Your task to perform on an android device: Find coffee shops on Maps Image 0: 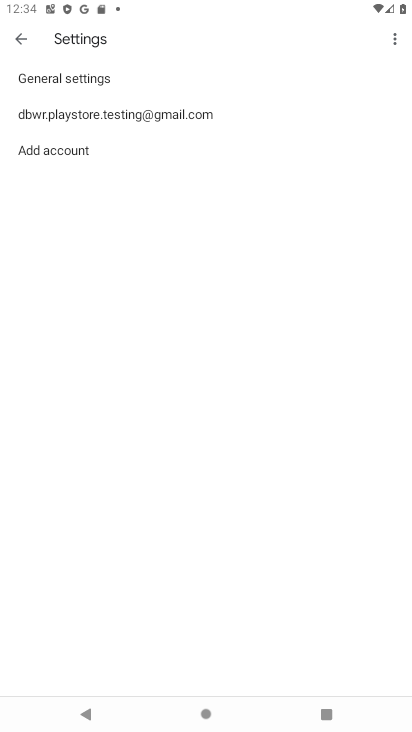
Step 0: press home button
Your task to perform on an android device: Find coffee shops on Maps Image 1: 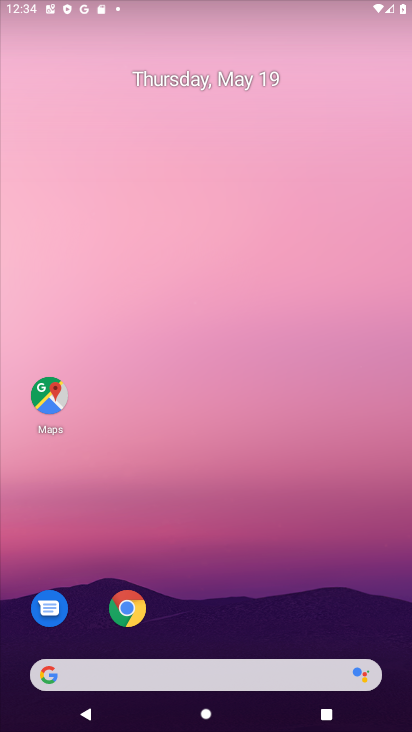
Step 1: drag from (241, 609) to (269, 208)
Your task to perform on an android device: Find coffee shops on Maps Image 2: 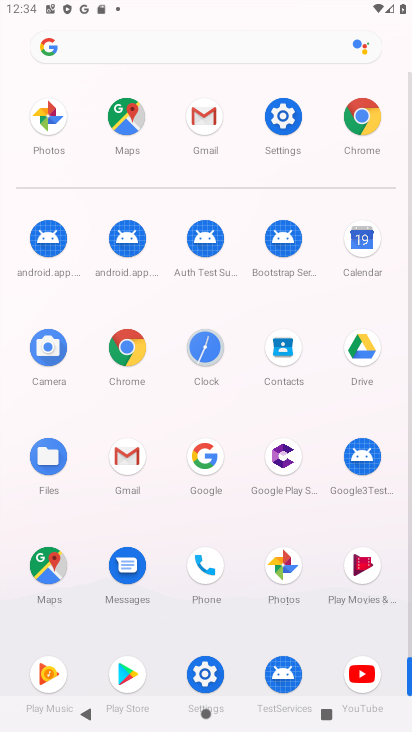
Step 2: click (52, 559)
Your task to perform on an android device: Find coffee shops on Maps Image 3: 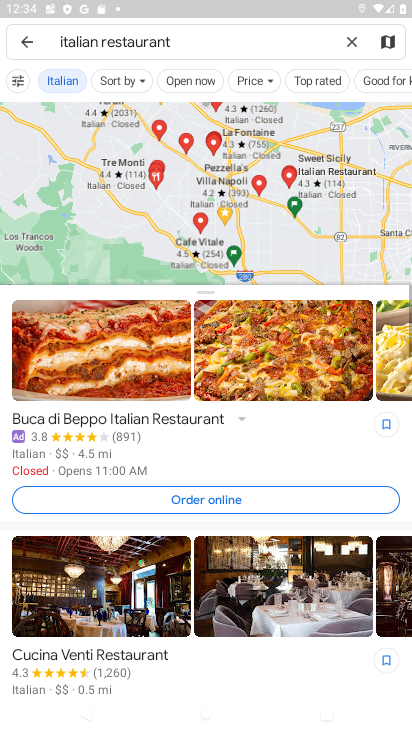
Step 3: click (341, 34)
Your task to perform on an android device: Find coffee shops on Maps Image 4: 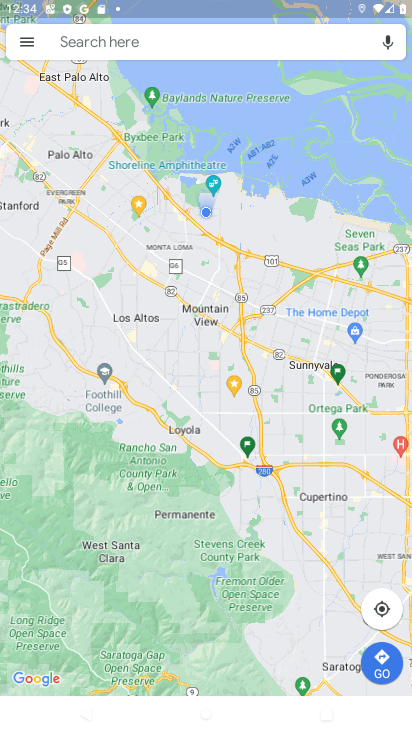
Step 4: click (176, 36)
Your task to perform on an android device: Find coffee shops on Maps Image 5: 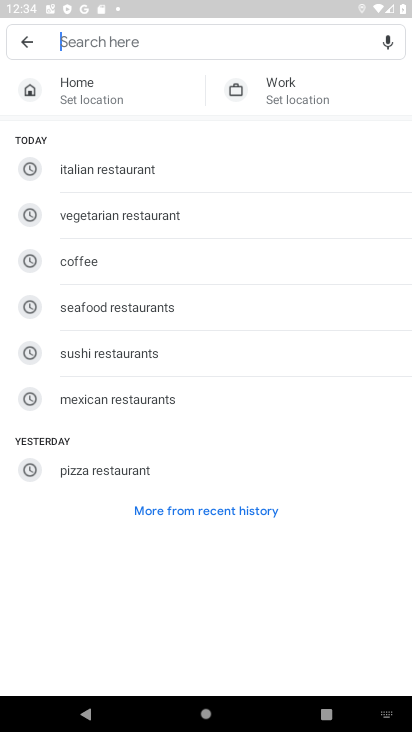
Step 5: type " coffee shops"
Your task to perform on an android device: Find coffee shops on Maps Image 6: 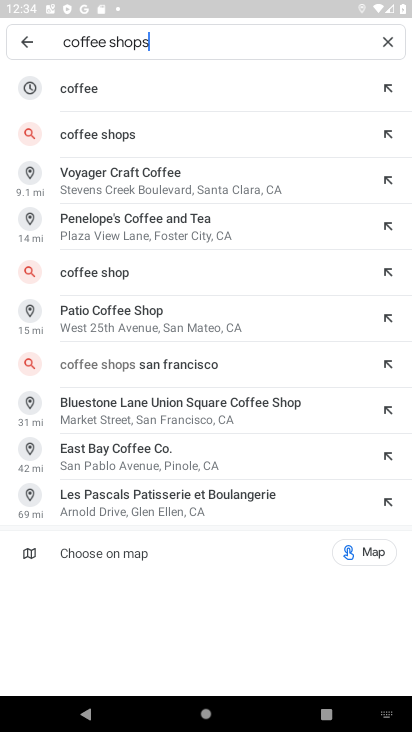
Step 6: click (146, 124)
Your task to perform on an android device: Find coffee shops on Maps Image 7: 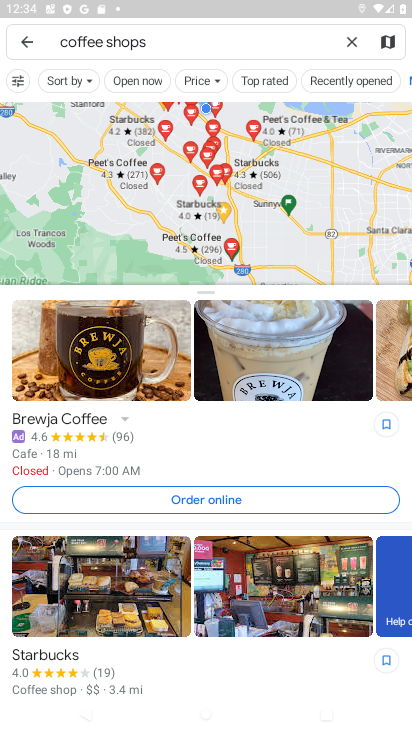
Step 7: task complete